Your task to perform on an android device: turn off smart reply in the gmail app Image 0: 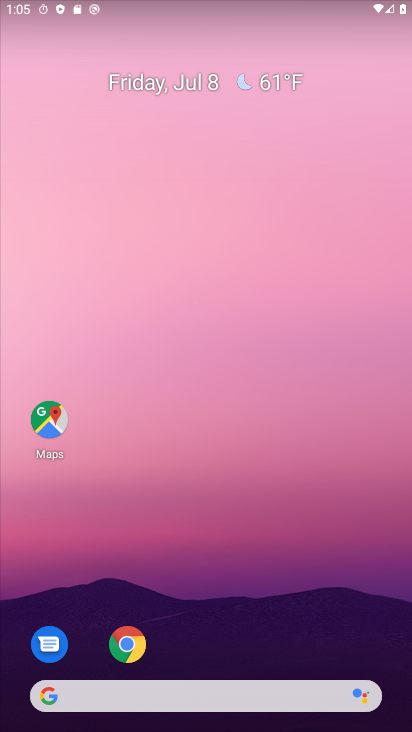
Step 0: drag from (200, 543) to (200, 263)
Your task to perform on an android device: turn off smart reply in the gmail app Image 1: 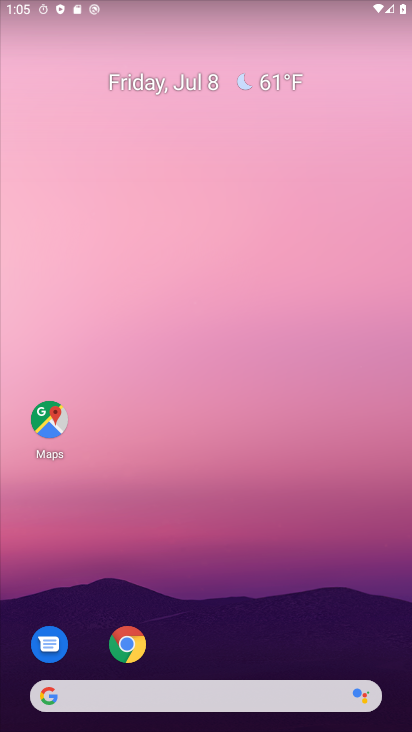
Step 1: drag from (189, 240) to (189, 189)
Your task to perform on an android device: turn off smart reply in the gmail app Image 2: 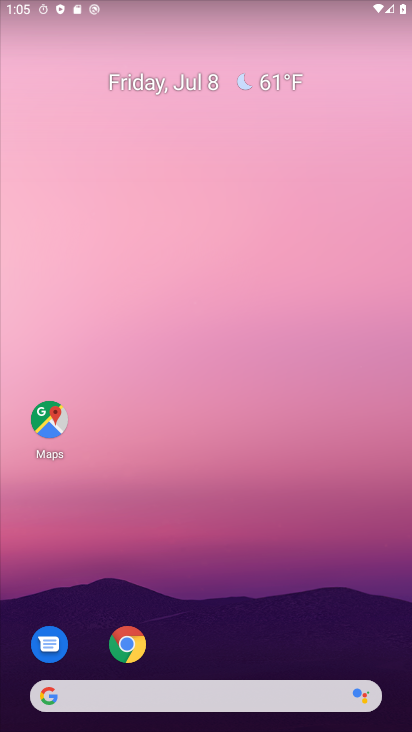
Step 2: drag from (195, 383) to (205, 124)
Your task to perform on an android device: turn off smart reply in the gmail app Image 3: 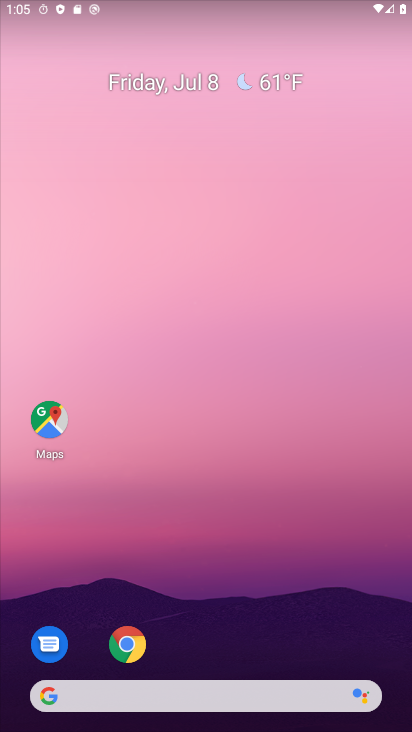
Step 3: drag from (280, 253) to (309, 42)
Your task to perform on an android device: turn off smart reply in the gmail app Image 4: 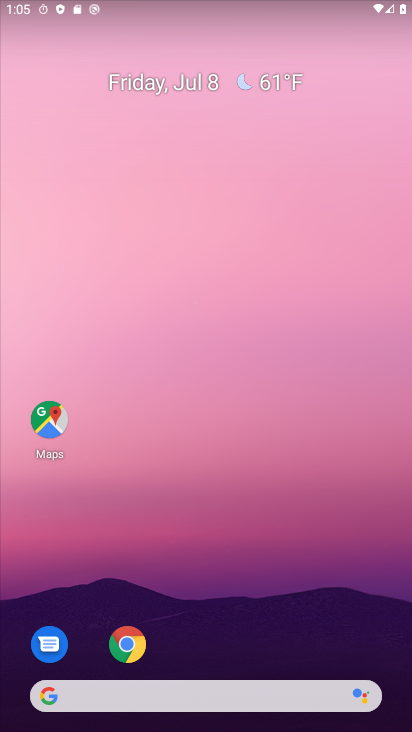
Step 4: drag from (196, 500) to (202, 129)
Your task to perform on an android device: turn off smart reply in the gmail app Image 5: 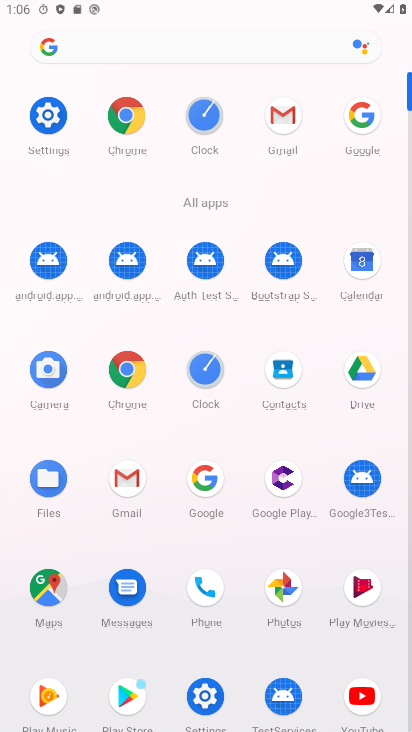
Step 5: click (276, 151)
Your task to perform on an android device: turn off smart reply in the gmail app Image 6: 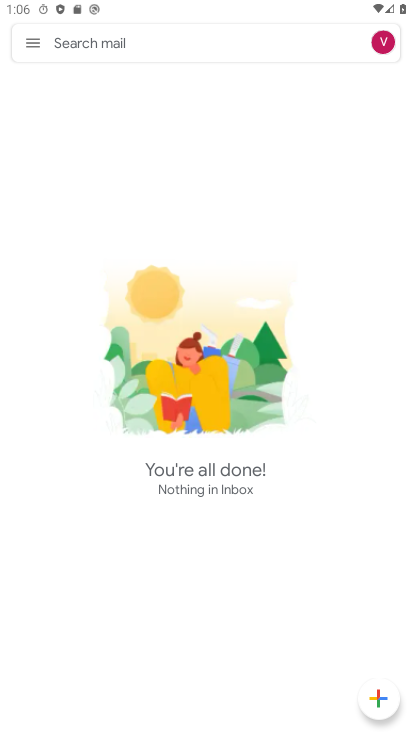
Step 6: click (31, 40)
Your task to perform on an android device: turn off smart reply in the gmail app Image 7: 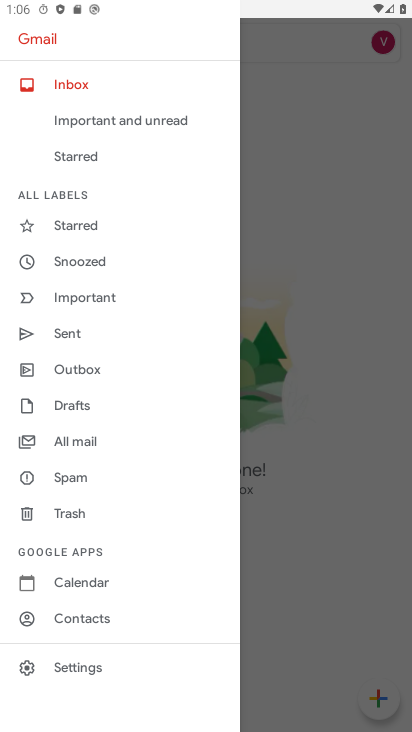
Step 7: click (81, 665)
Your task to perform on an android device: turn off smart reply in the gmail app Image 8: 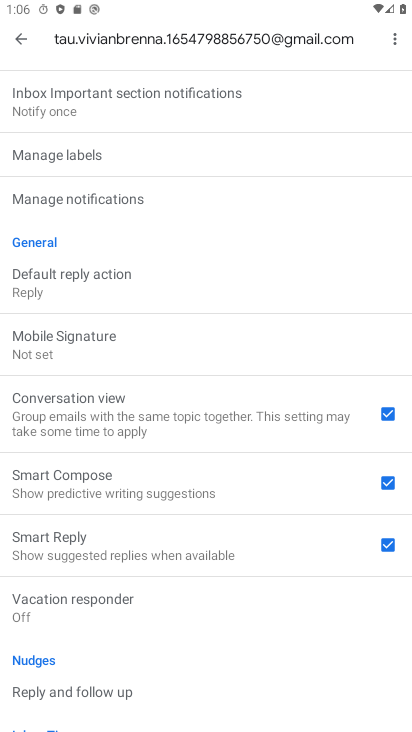
Step 8: click (393, 481)
Your task to perform on an android device: turn off smart reply in the gmail app Image 9: 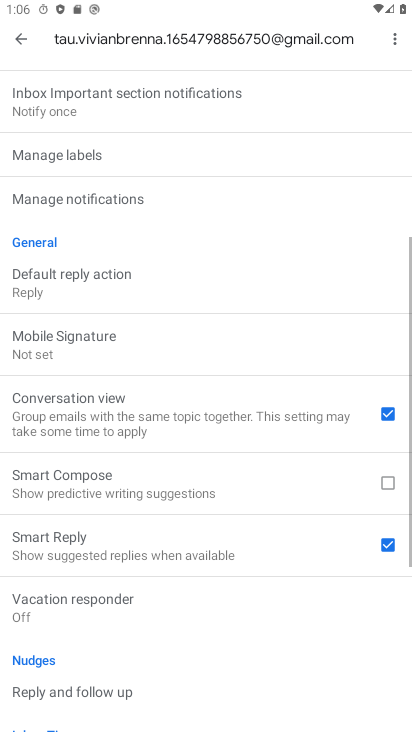
Step 9: click (393, 481)
Your task to perform on an android device: turn off smart reply in the gmail app Image 10: 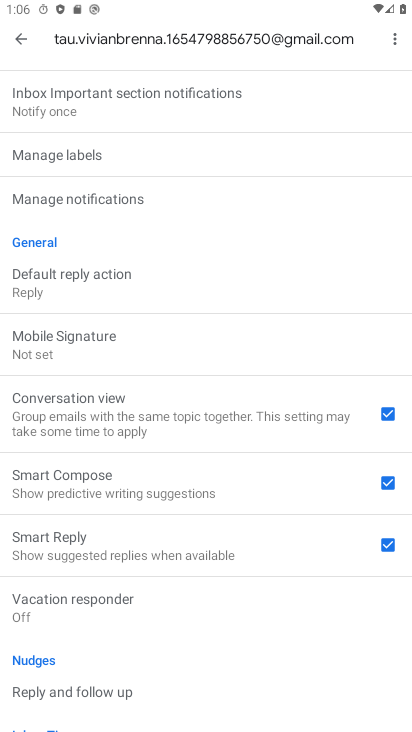
Step 10: click (388, 550)
Your task to perform on an android device: turn off smart reply in the gmail app Image 11: 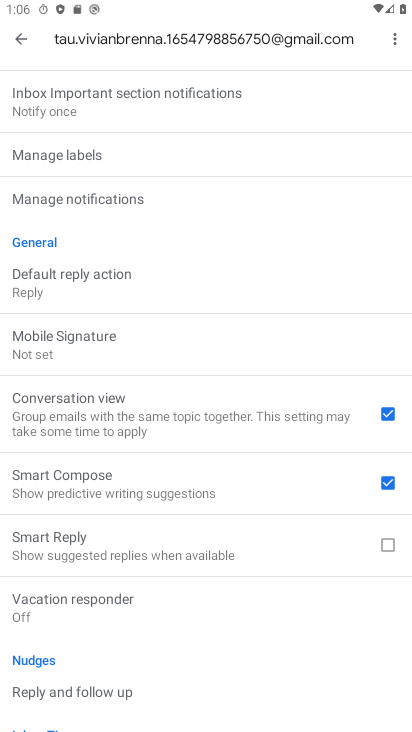
Step 11: task complete